Your task to perform on an android device: allow notifications from all sites in the chrome app Image 0: 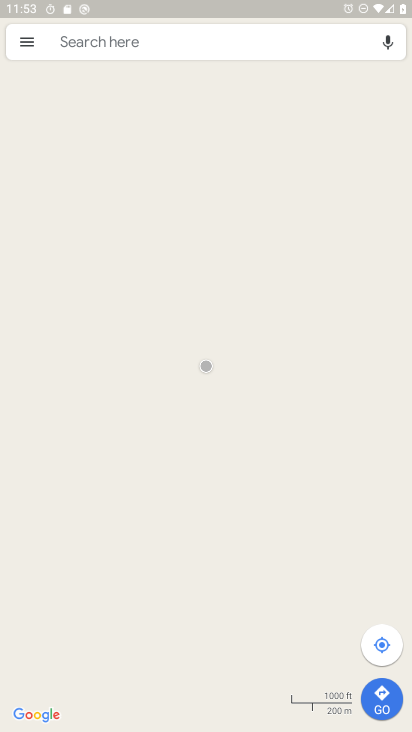
Step 0: press home button
Your task to perform on an android device: allow notifications from all sites in the chrome app Image 1: 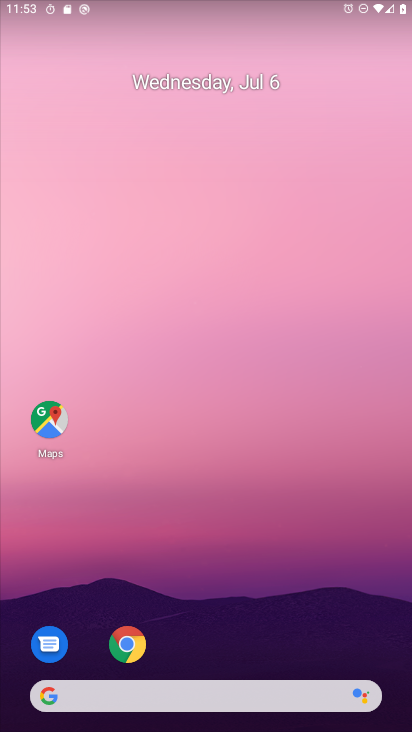
Step 1: click (130, 646)
Your task to perform on an android device: allow notifications from all sites in the chrome app Image 2: 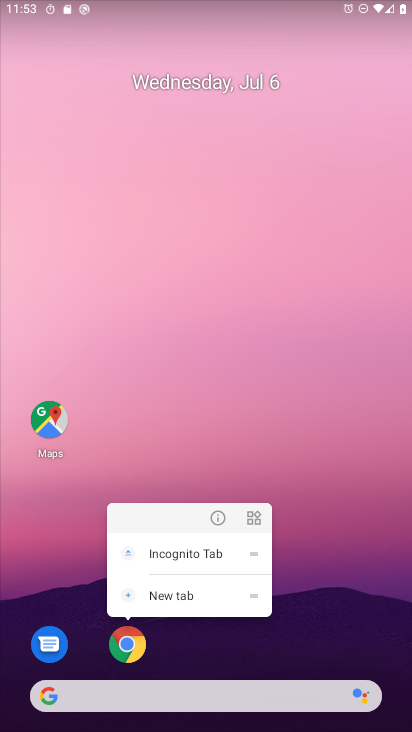
Step 2: click (130, 646)
Your task to perform on an android device: allow notifications from all sites in the chrome app Image 3: 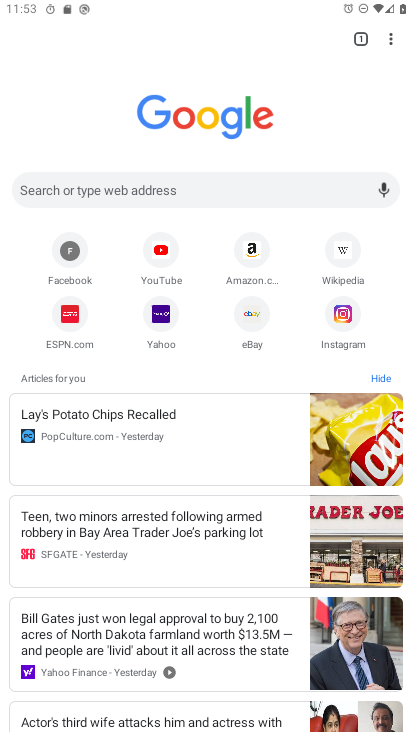
Step 3: click (386, 38)
Your task to perform on an android device: allow notifications from all sites in the chrome app Image 4: 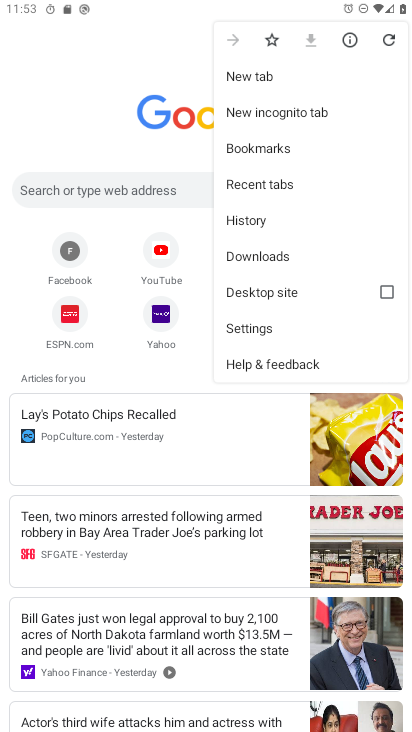
Step 4: click (252, 330)
Your task to perform on an android device: allow notifications from all sites in the chrome app Image 5: 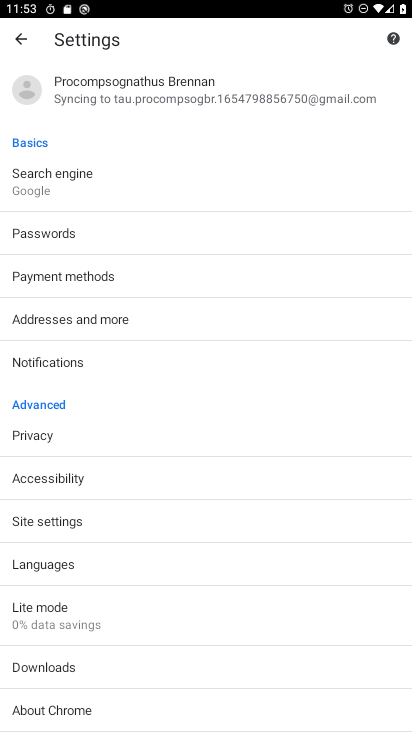
Step 5: click (35, 522)
Your task to perform on an android device: allow notifications from all sites in the chrome app Image 6: 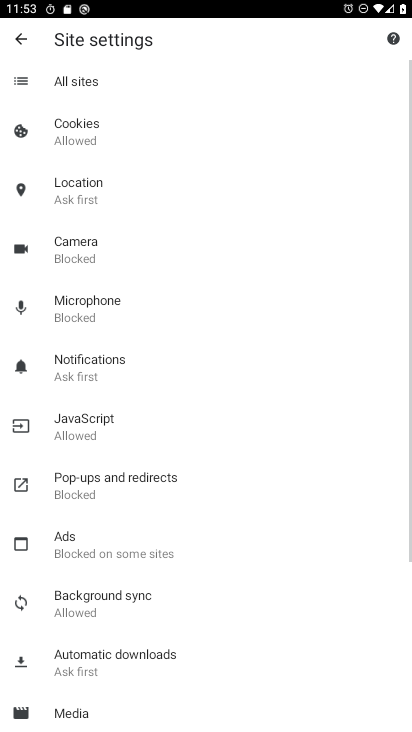
Step 6: drag from (107, 371) to (233, 147)
Your task to perform on an android device: allow notifications from all sites in the chrome app Image 7: 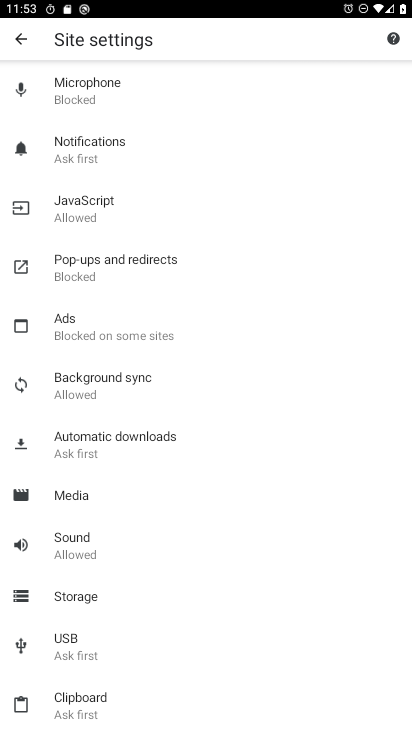
Step 7: click (137, 147)
Your task to perform on an android device: allow notifications from all sites in the chrome app Image 8: 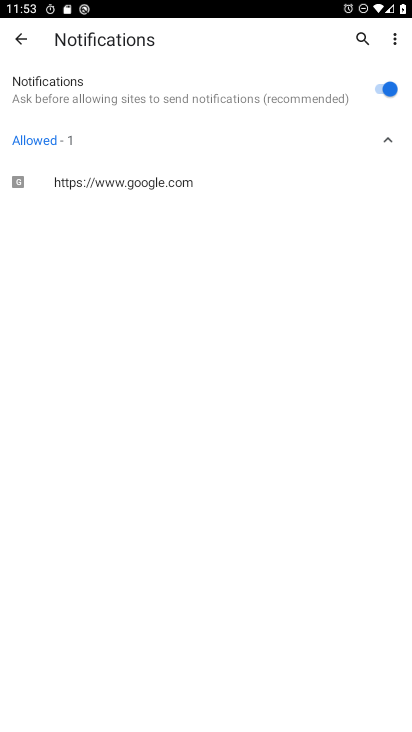
Step 8: task complete